Your task to perform on an android device: Go to sound settings Image 0: 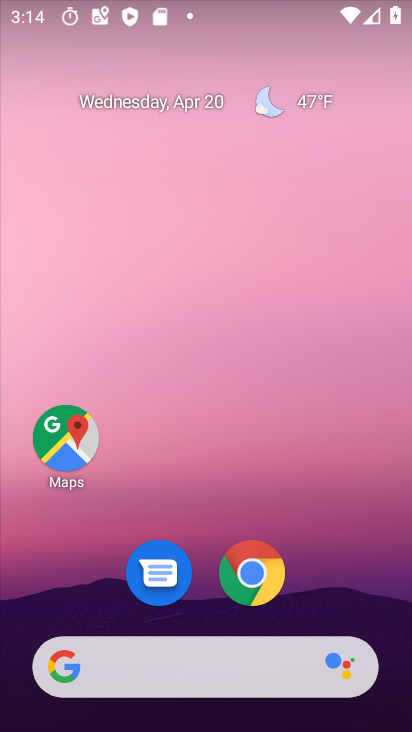
Step 0: drag from (212, 728) to (212, 99)
Your task to perform on an android device: Go to sound settings Image 1: 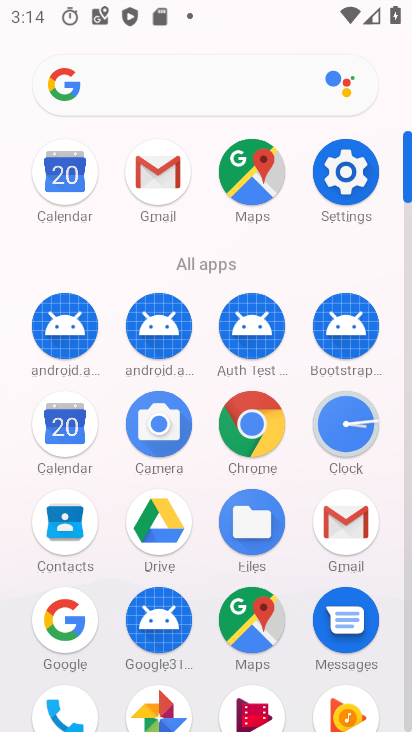
Step 1: click (342, 166)
Your task to perform on an android device: Go to sound settings Image 2: 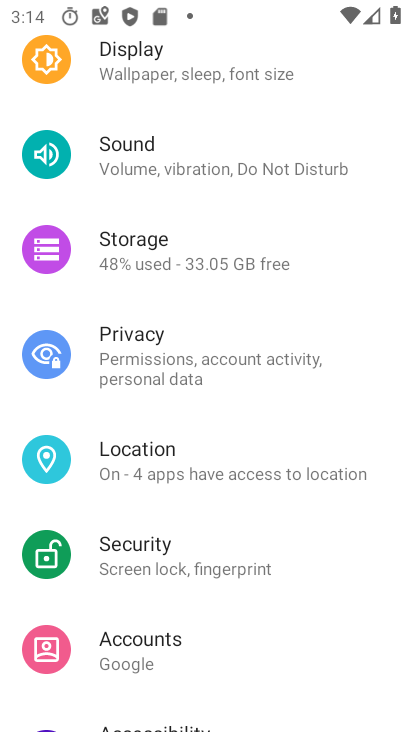
Step 2: click (133, 161)
Your task to perform on an android device: Go to sound settings Image 3: 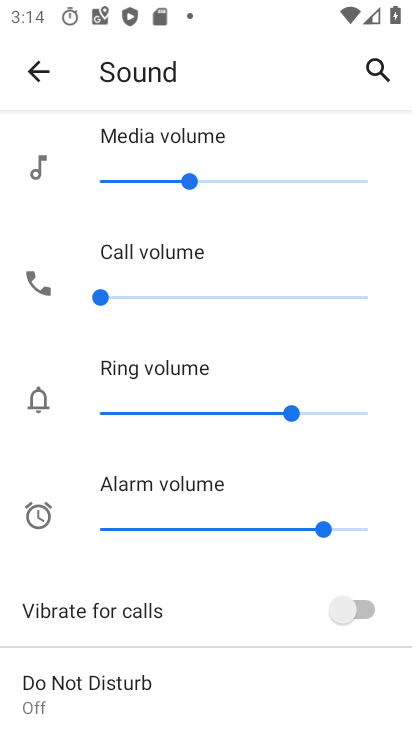
Step 3: task complete